Your task to perform on an android device: Search for vegetarian restaurants on Maps Image 0: 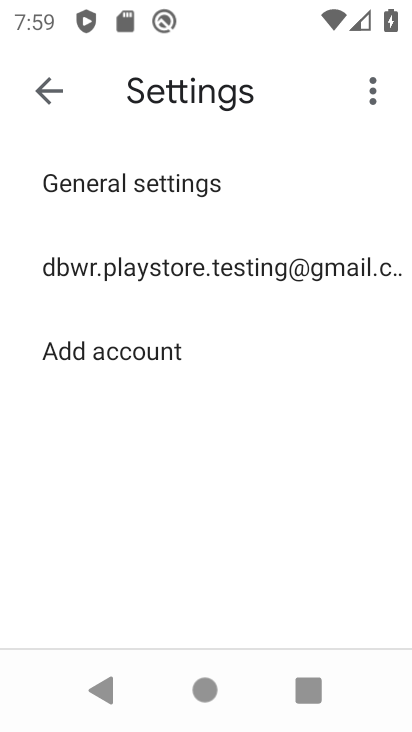
Step 0: press home button
Your task to perform on an android device: Search for vegetarian restaurants on Maps Image 1: 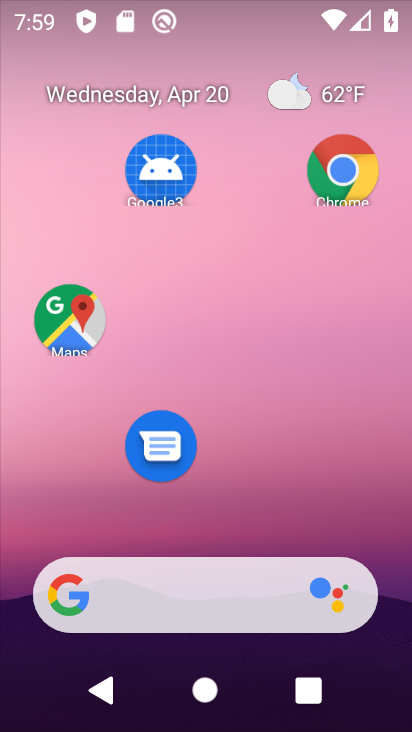
Step 1: click (73, 329)
Your task to perform on an android device: Search for vegetarian restaurants on Maps Image 2: 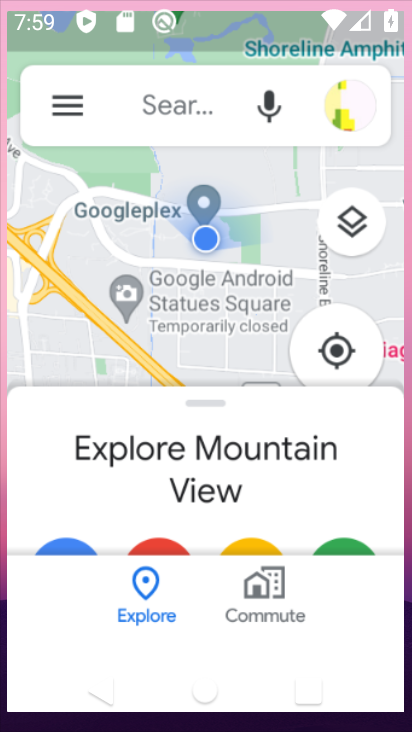
Step 2: click (73, 329)
Your task to perform on an android device: Search for vegetarian restaurants on Maps Image 3: 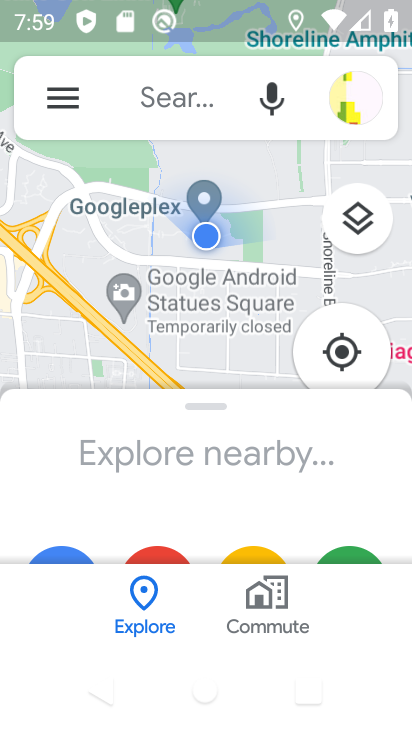
Step 3: click (156, 105)
Your task to perform on an android device: Search for vegetarian restaurants on Maps Image 4: 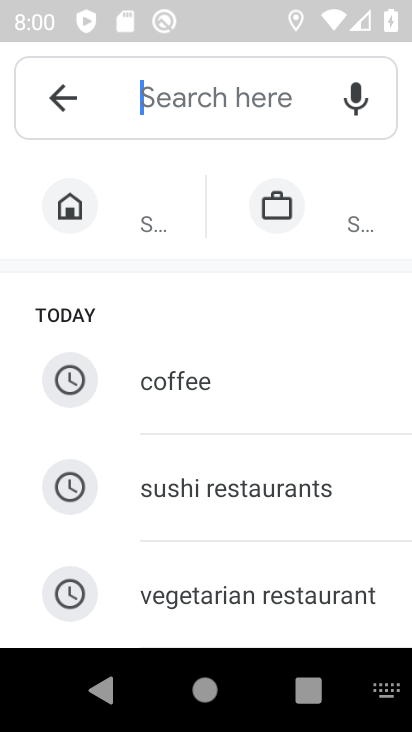
Step 4: click (194, 593)
Your task to perform on an android device: Search for vegetarian restaurants on Maps Image 5: 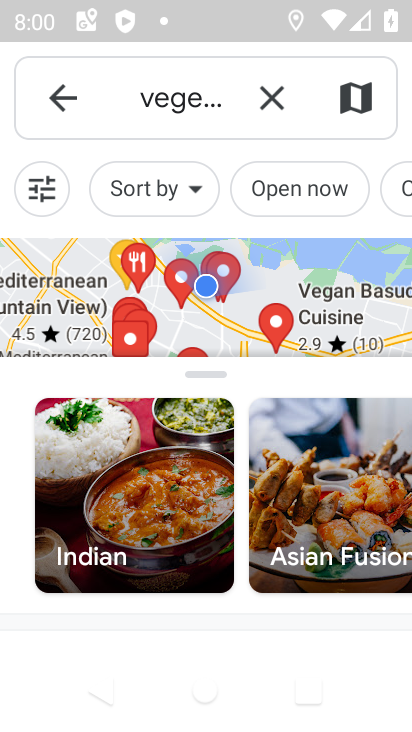
Step 5: task complete